Your task to perform on an android device: Search for the best lawnmowers on Lowes.com Image 0: 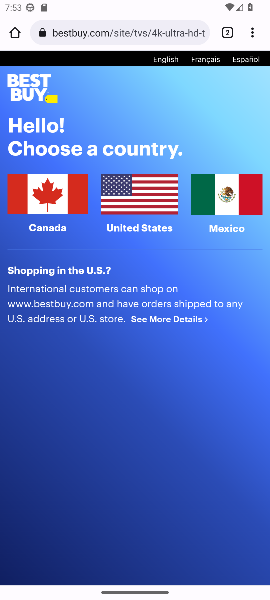
Step 0: press home button
Your task to perform on an android device: Search for the best lawnmowers on Lowes.com Image 1: 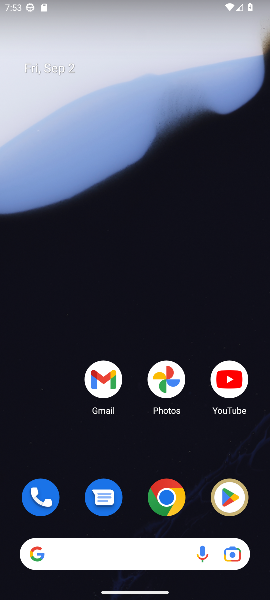
Step 1: click (169, 505)
Your task to perform on an android device: Search for the best lawnmowers on Lowes.com Image 2: 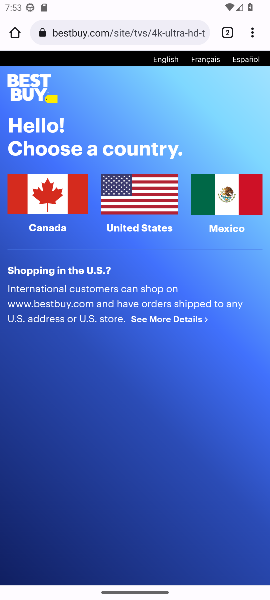
Step 2: click (109, 31)
Your task to perform on an android device: Search for the best lawnmowers on Lowes.com Image 3: 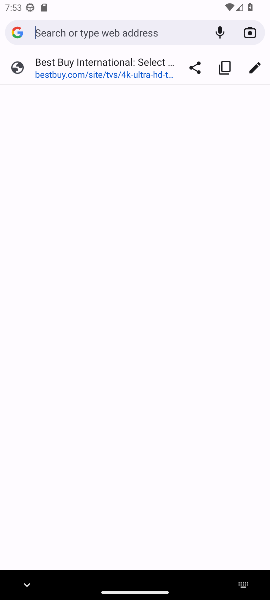
Step 3: type "the best lawnmowers on Lowes.com"
Your task to perform on an android device: Search for the best lawnmowers on Lowes.com Image 4: 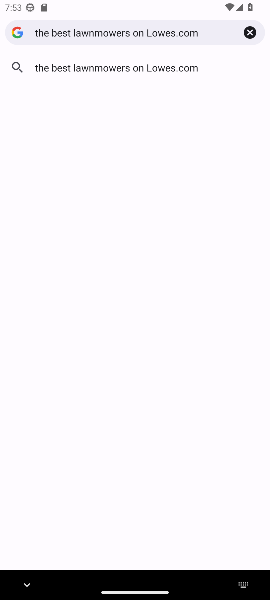
Step 4: click (91, 65)
Your task to perform on an android device: Search for the best lawnmowers on Lowes.com Image 5: 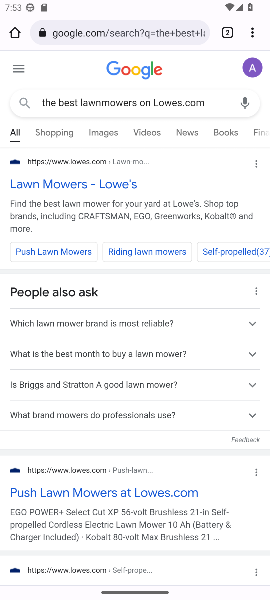
Step 5: click (115, 489)
Your task to perform on an android device: Search for the best lawnmowers on Lowes.com Image 6: 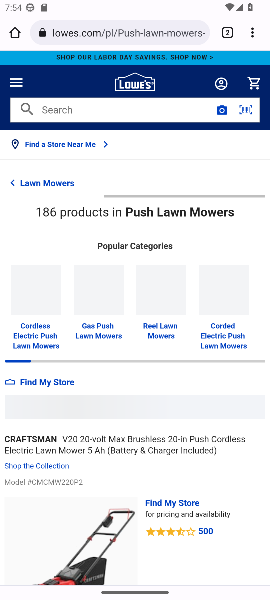
Step 6: task complete